Your task to perform on an android device: Open display settings Image 0: 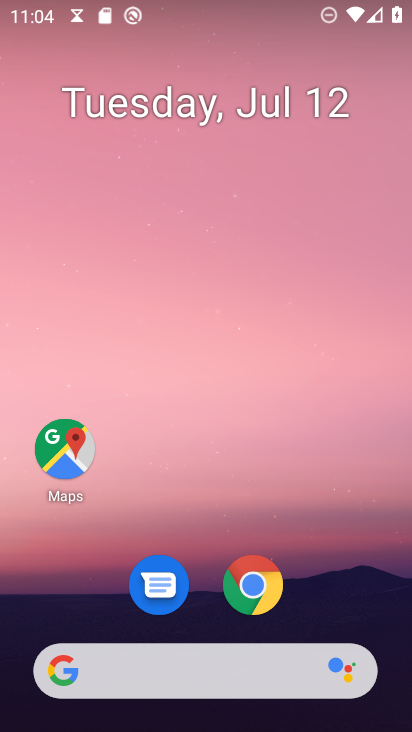
Step 0: press home button
Your task to perform on an android device: Open display settings Image 1: 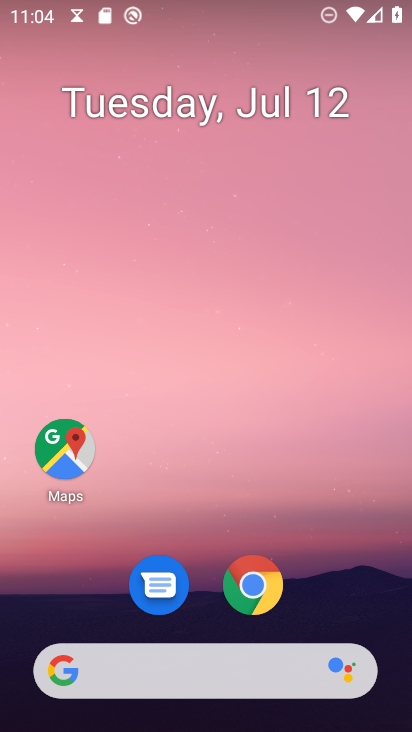
Step 1: drag from (199, 669) to (382, 93)
Your task to perform on an android device: Open display settings Image 2: 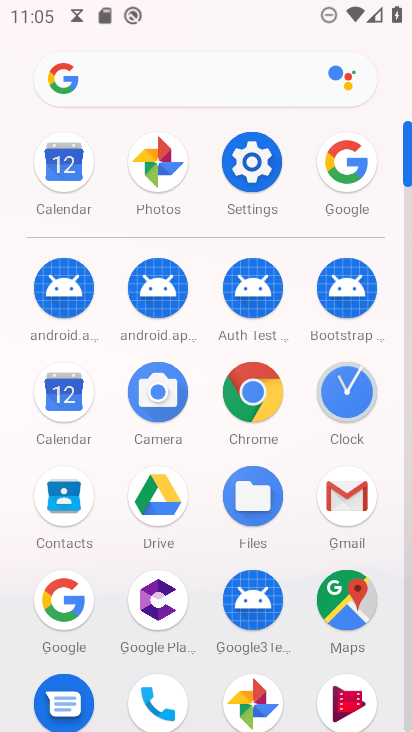
Step 2: click (260, 170)
Your task to perform on an android device: Open display settings Image 3: 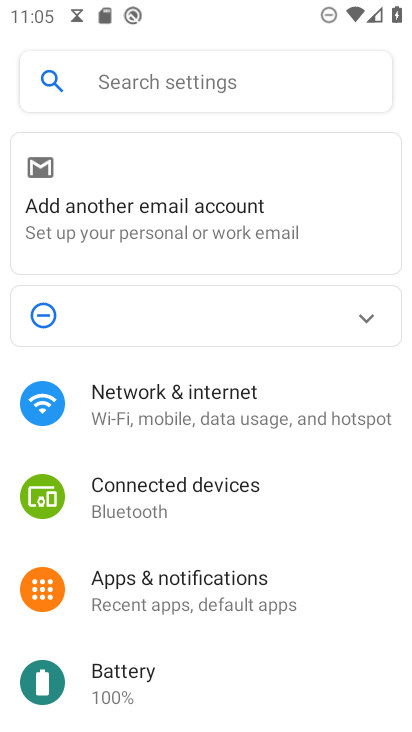
Step 3: drag from (282, 622) to (353, 230)
Your task to perform on an android device: Open display settings Image 4: 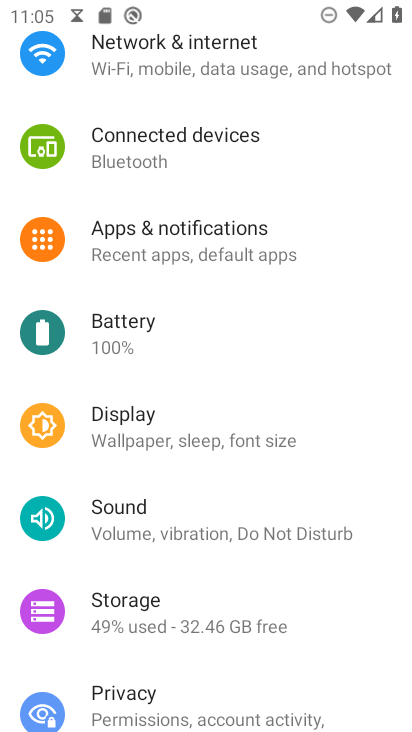
Step 4: click (154, 414)
Your task to perform on an android device: Open display settings Image 5: 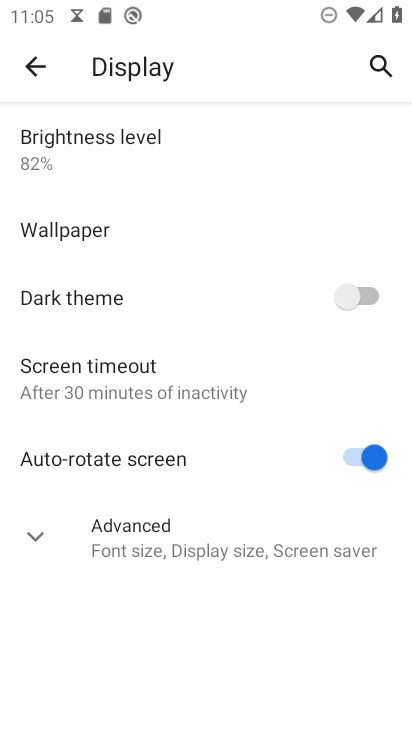
Step 5: task complete